Your task to perform on an android device: What's the weather? Image 0: 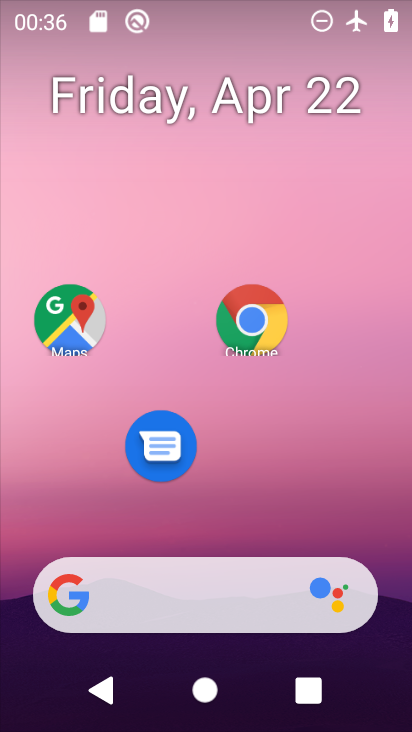
Step 0: drag from (230, 537) to (230, 194)
Your task to perform on an android device: What's the weather? Image 1: 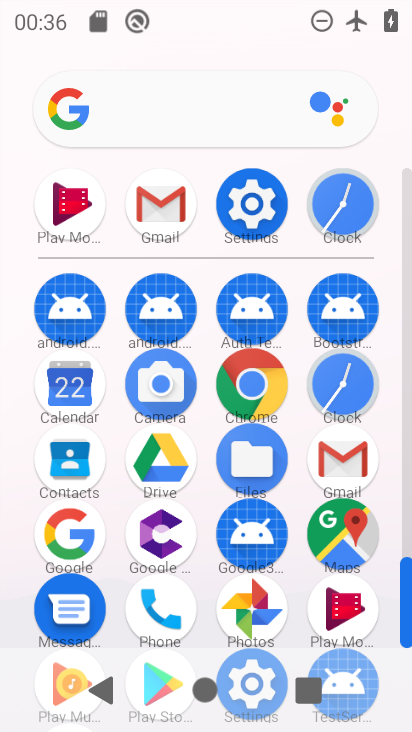
Step 1: drag from (205, 643) to (204, 357)
Your task to perform on an android device: What's the weather? Image 2: 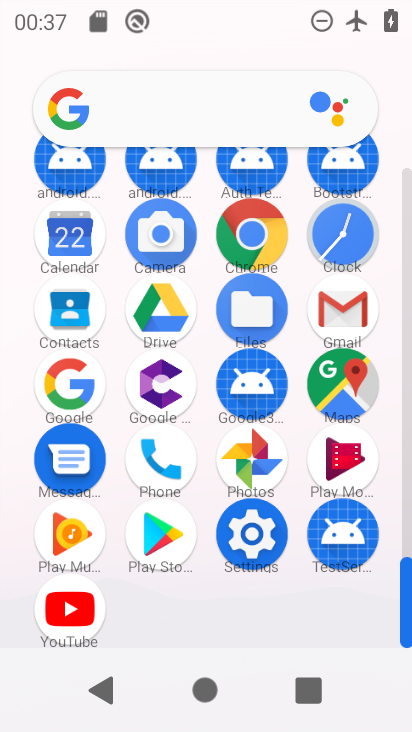
Step 2: click (251, 237)
Your task to perform on an android device: What's the weather? Image 3: 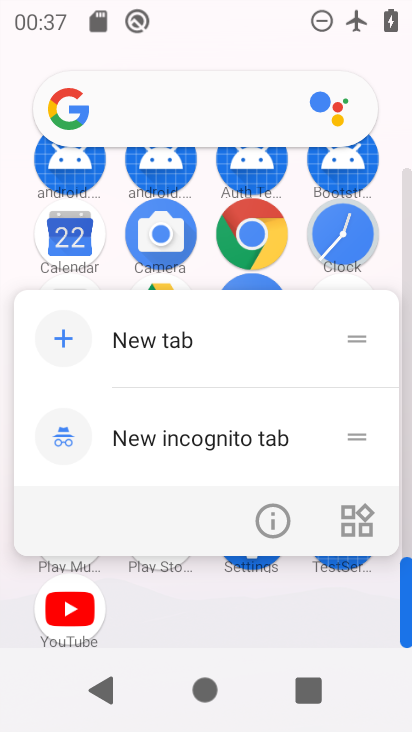
Step 3: click (265, 511)
Your task to perform on an android device: What's the weather? Image 4: 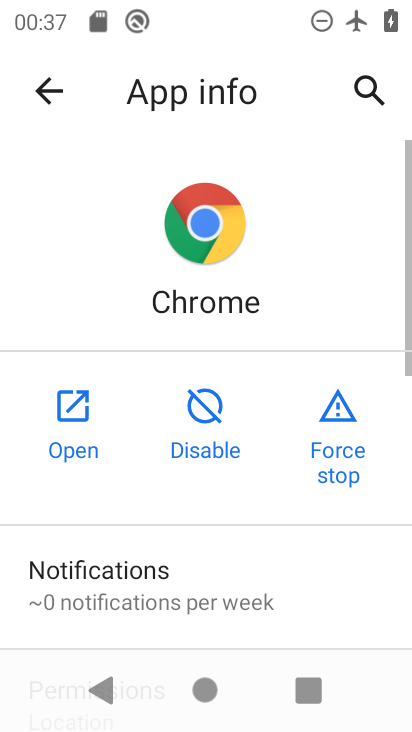
Step 4: click (73, 423)
Your task to perform on an android device: What's the weather? Image 5: 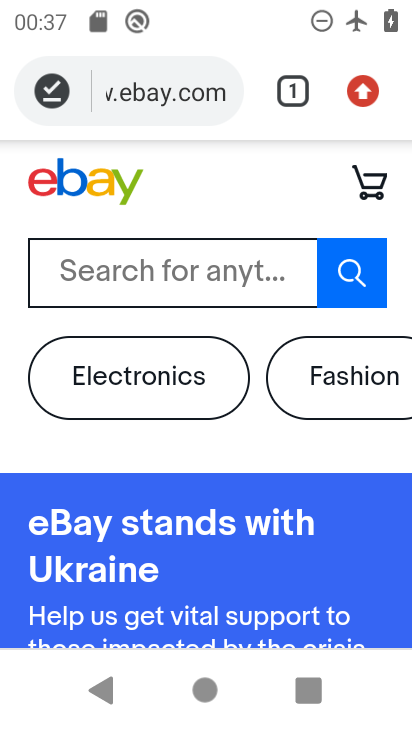
Step 5: click (172, 88)
Your task to perform on an android device: What's the weather? Image 6: 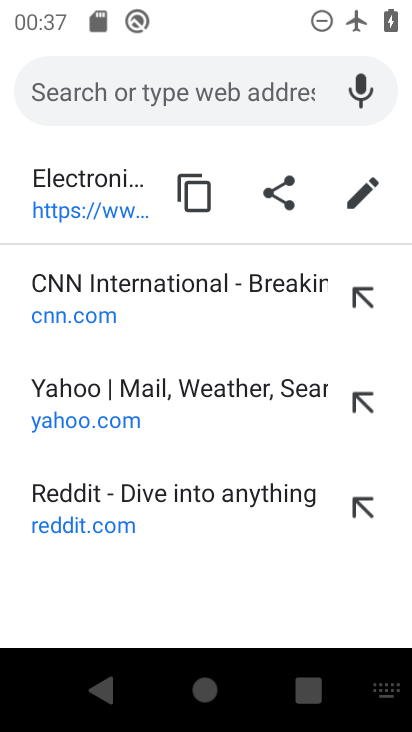
Step 6: type "weather"
Your task to perform on an android device: What's the weather? Image 7: 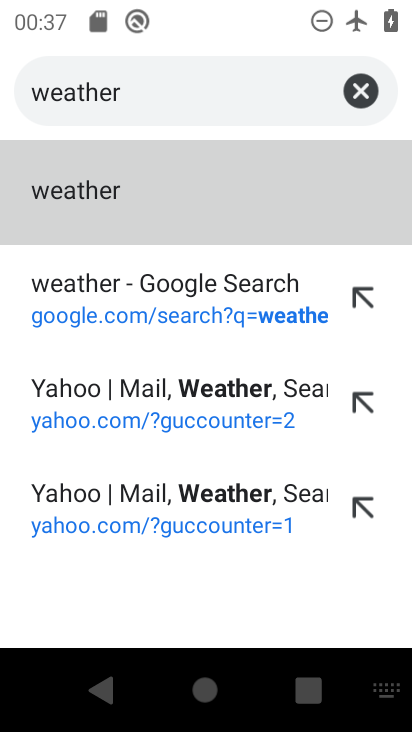
Step 7: click (98, 211)
Your task to perform on an android device: What's the weather? Image 8: 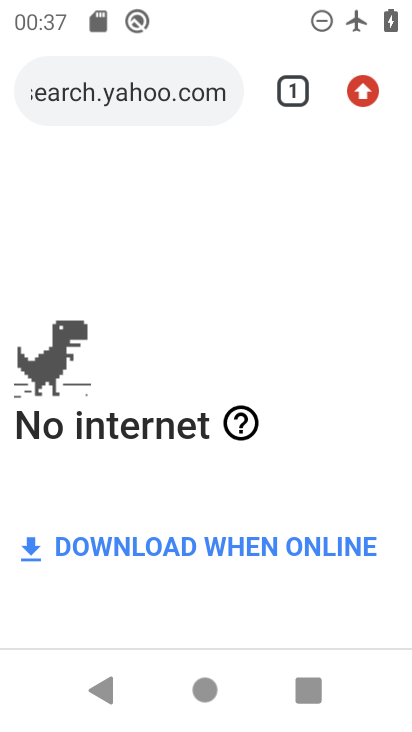
Step 8: drag from (243, 536) to (240, 247)
Your task to perform on an android device: What's the weather? Image 9: 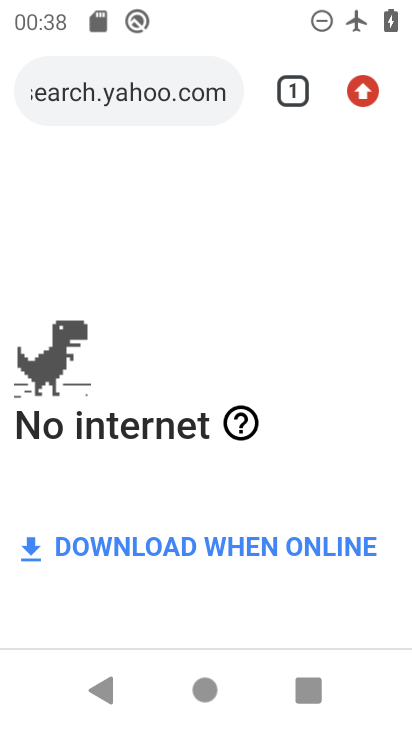
Step 9: drag from (240, 532) to (263, 82)
Your task to perform on an android device: What's the weather? Image 10: 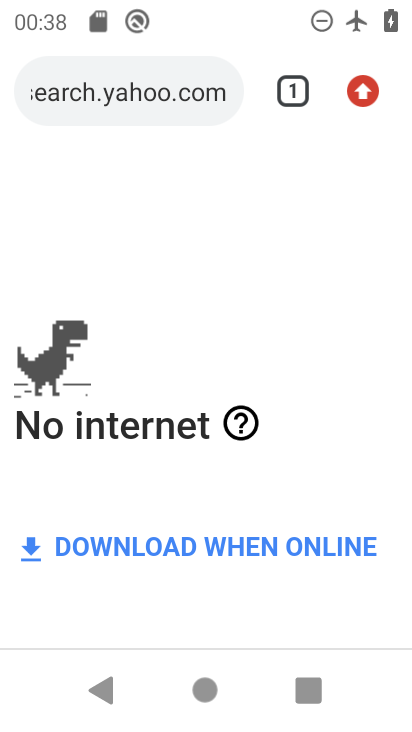
Step 10: click (134, 100)
Your task to perform on an android device: What's the weather? Image 11: 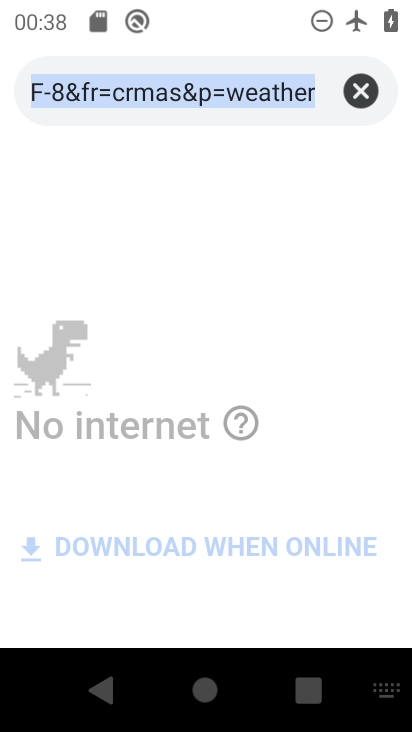
Step 11: task complete